Your task to perform on an android device: all mails in gmail Image 0: 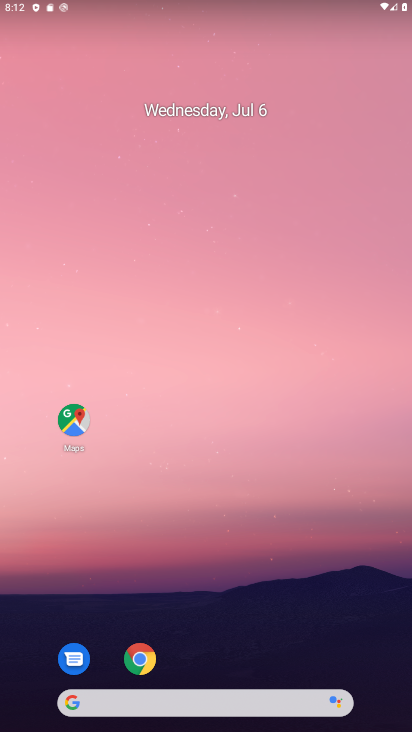
Step 0: drag from (198, 647) to (250, 371)
Your task to perform on an android device: all mails in gmail Image 1: 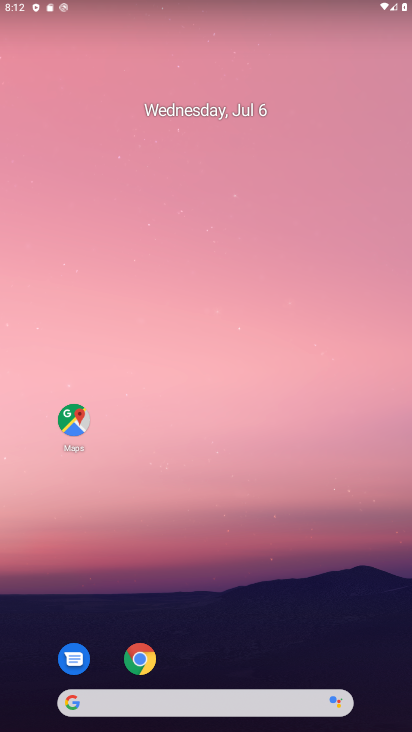
Step 1: drag from (199, 648) to (243, 371)
Your task to perform on an android device: all mails in gmail Image 2: 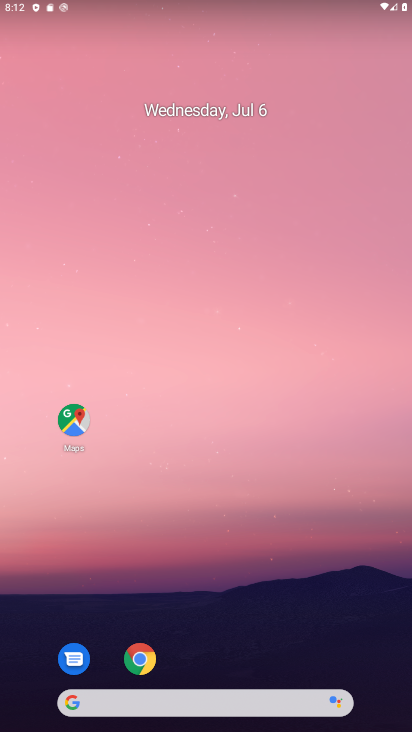
Step 2: drag from (200, 607) to (239, 29)
Your task to perform on an android device: all mails in gmail Image 3: 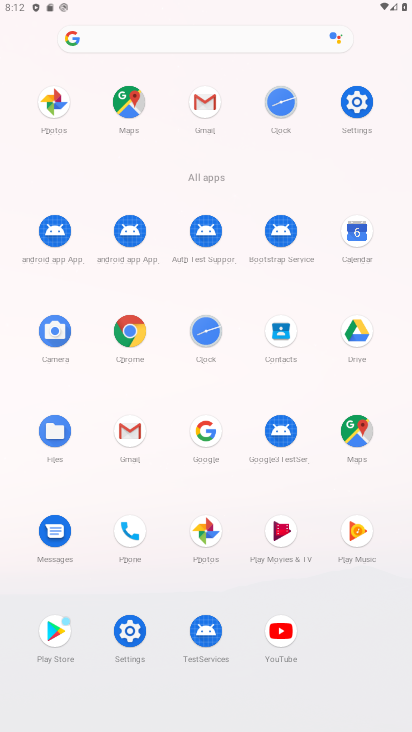
Step 3: click (124, 426)
Your task to perform on an android device: all mails in gmail Image 4: 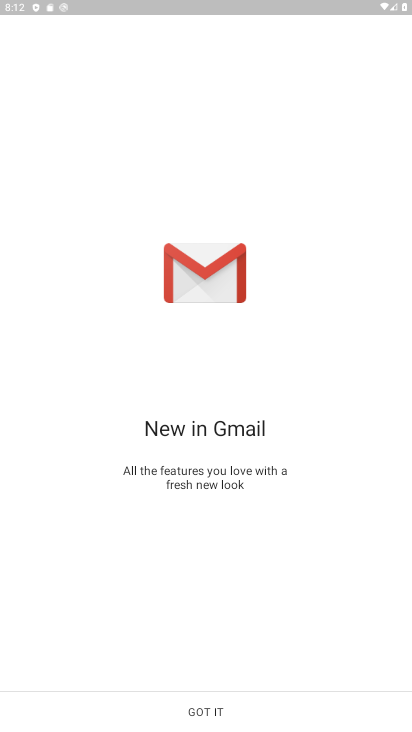
Step 4: click (200, 706)
Your task to perform on an android device: all mails in gmail Image 5: 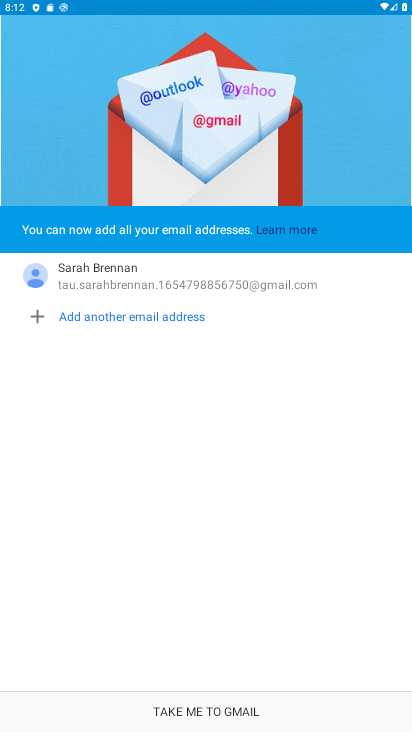
Step 5: click (183, 709)
Your task to perform on an android device: all mails in gmail Image 6: 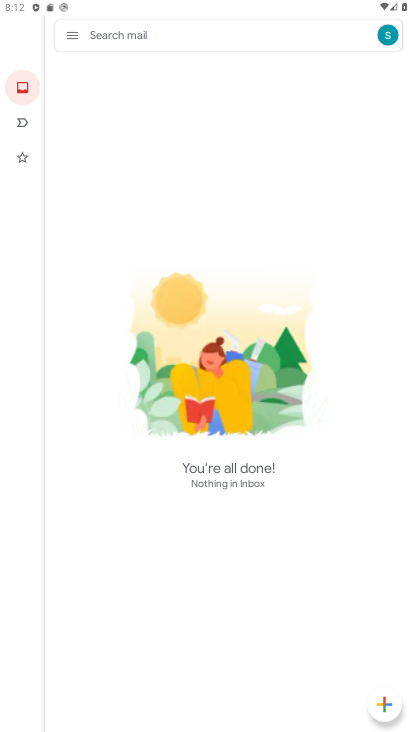
Step 6: click (61, 29)
Your task to perform on an android device: all mails in gmail Image 7: 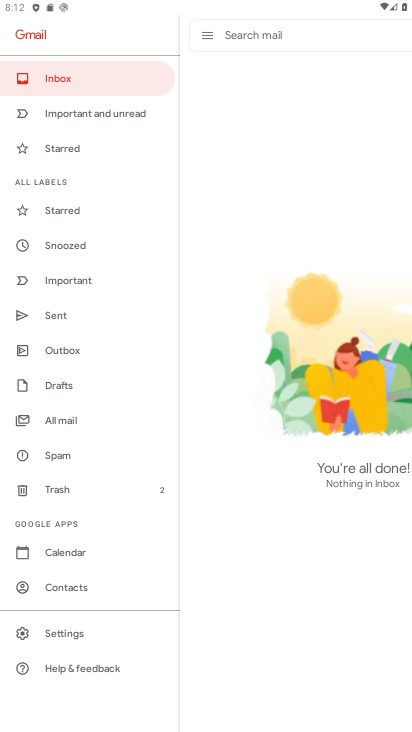
Step 7: click (51, 421)
Your task to perform on an android device: all mails in gmail Image 8: 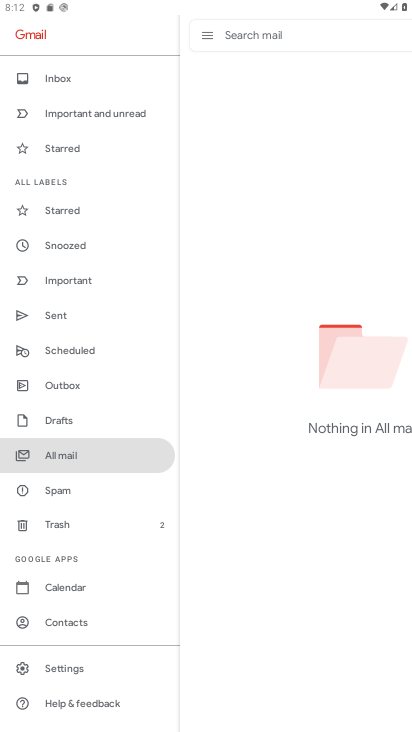
Step 8: click (80, 470)
Your task to perform on an android device: all mails in gmail Image 9: 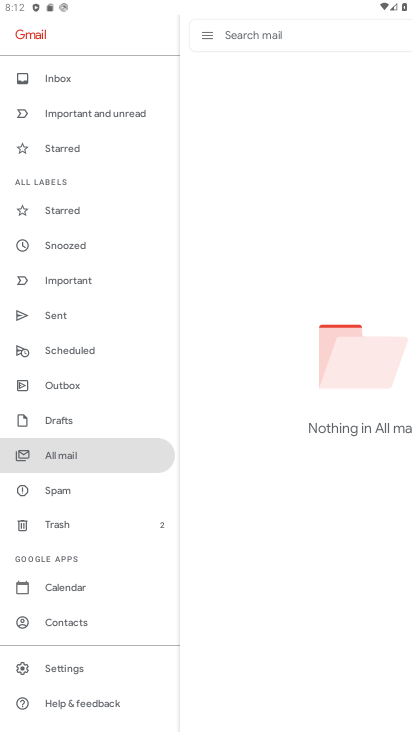
Step 9: click (46, 464)
Your task to perform on an android device: all mails in gmail Image 10: 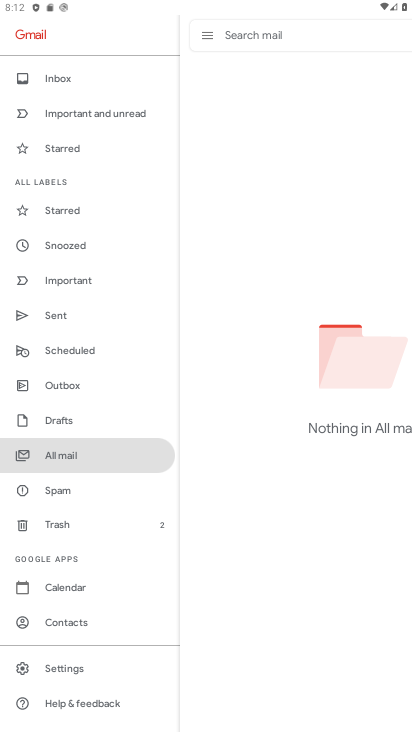
Step 10: click (58, 454)
Your task to perform on an android device: all mails in gmail Image 11: 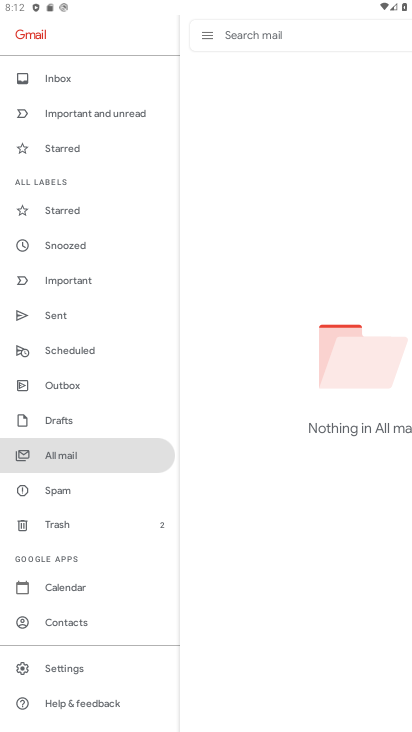
Step 11: drag from (227, 563) to (258, 345)
Your task to perform on an android device: all mails in gmail Image 12: 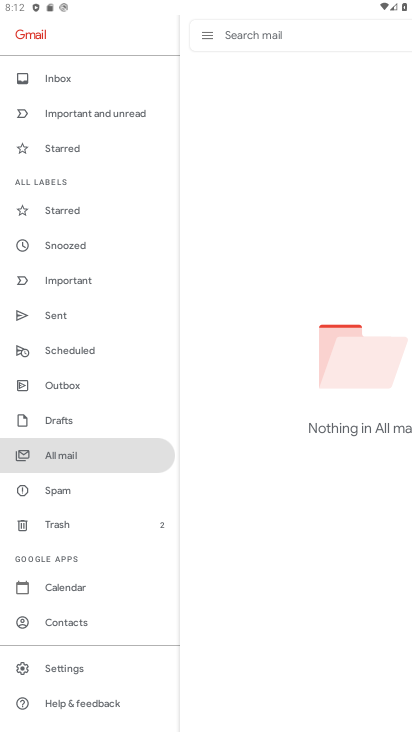
Step 12: click (68, 454)
Your task to perform on an android device: all mails in gmail Image 13: 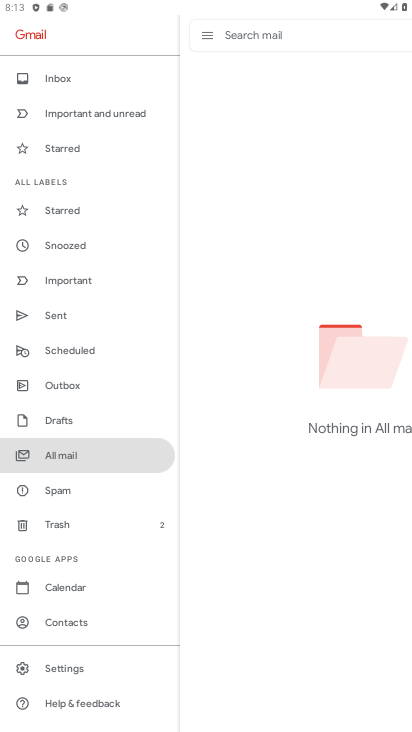
Step 13: click (243, 368)
Your task to perform on an android device: all mails in gmail Image 14: 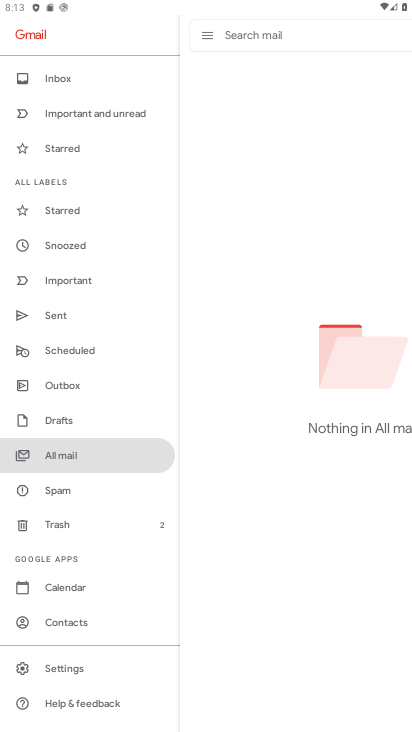
Step 14: click (82, 462)
Your task to perform on an android device: all mails in gmail Image 15: 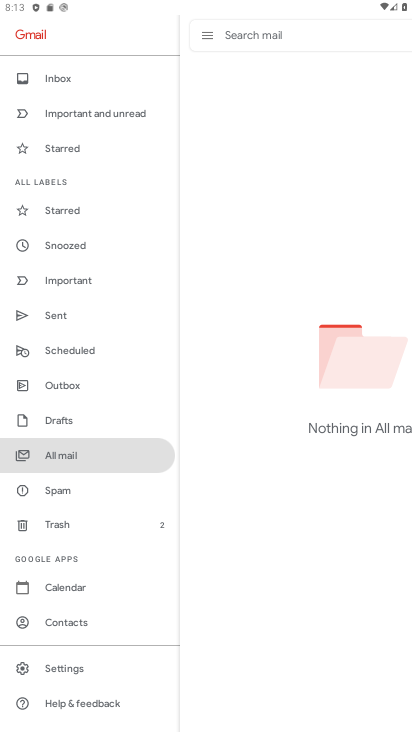
Step 15: task complete